Your task to perform on an android device: see tabs open on other devices in the chrome app Image 0: 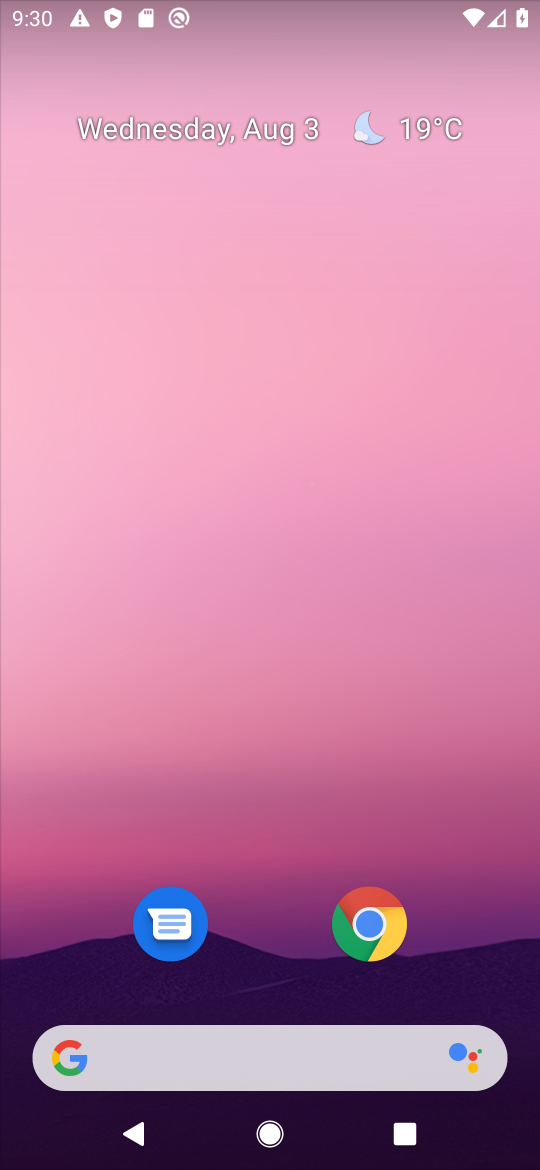
Step 0: press home button
Your task to perform on an android device: see tabs open on other devices in the chrome app Image 1: 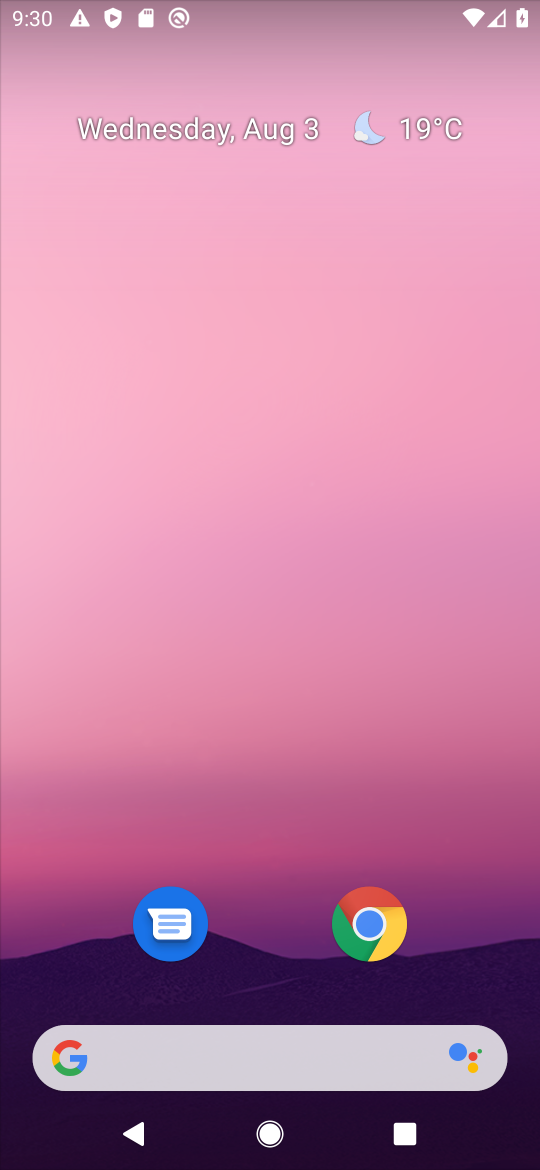
Step 1: click (364, 925)
Your task to perform on an android device: see tabs open on other devices in the chrome app Image 2: 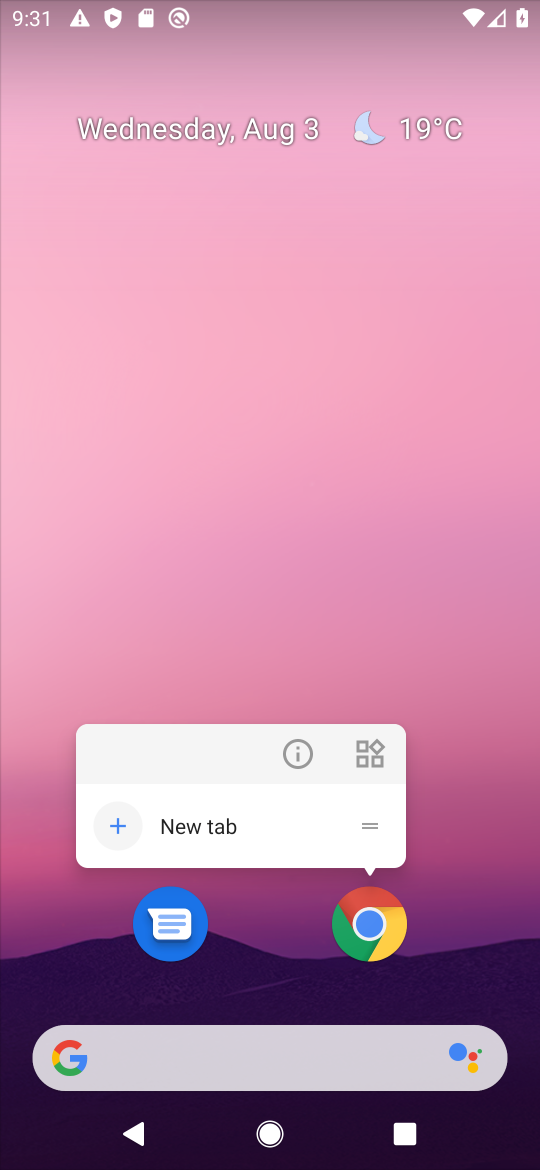
Step 2: click (432, 873)
Your task to perform on an android device: see tabs open on other devices in the chrome app Image 3: 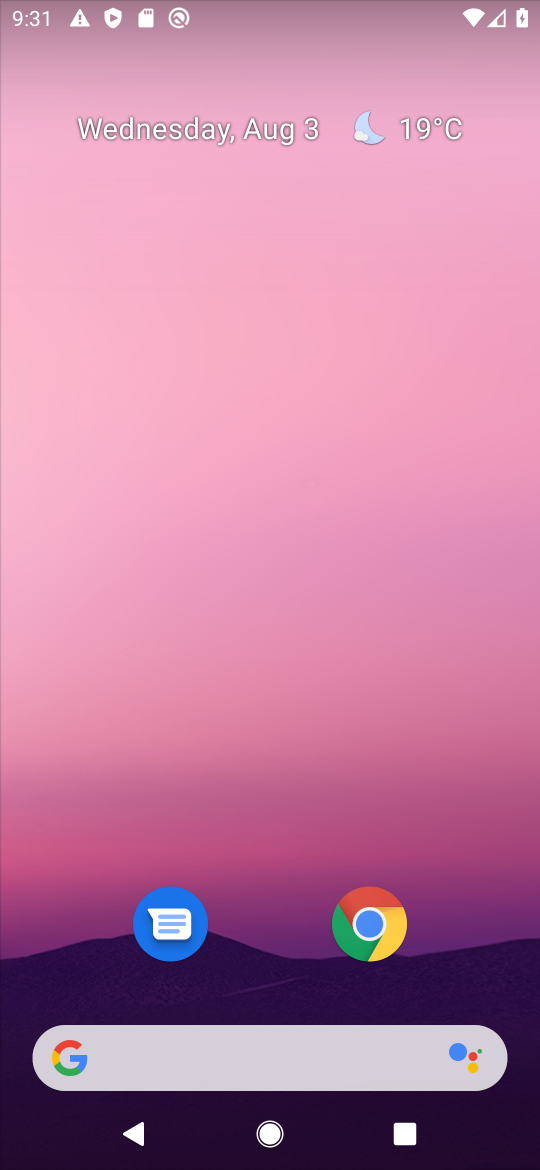
Step 3: drag from (439, 953) to (400, 40)
Your task to perform on an android device: see tabs open on other devices in the chrome app Image 4: 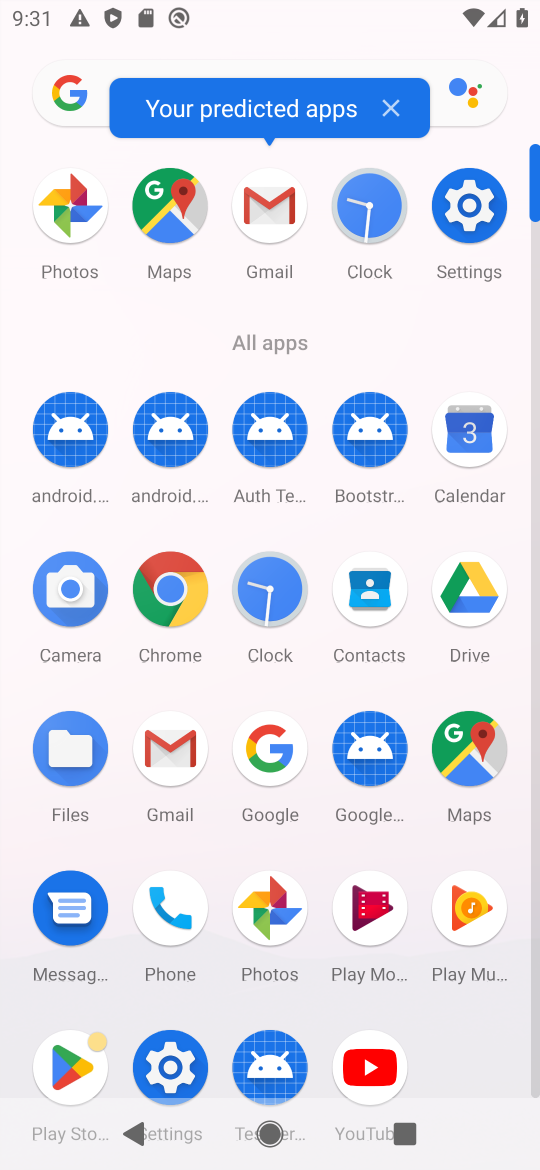
Step 4: click (161, 588)
Your task to perform on an android device: see tabs open on other devices in the chrome app Image 5: 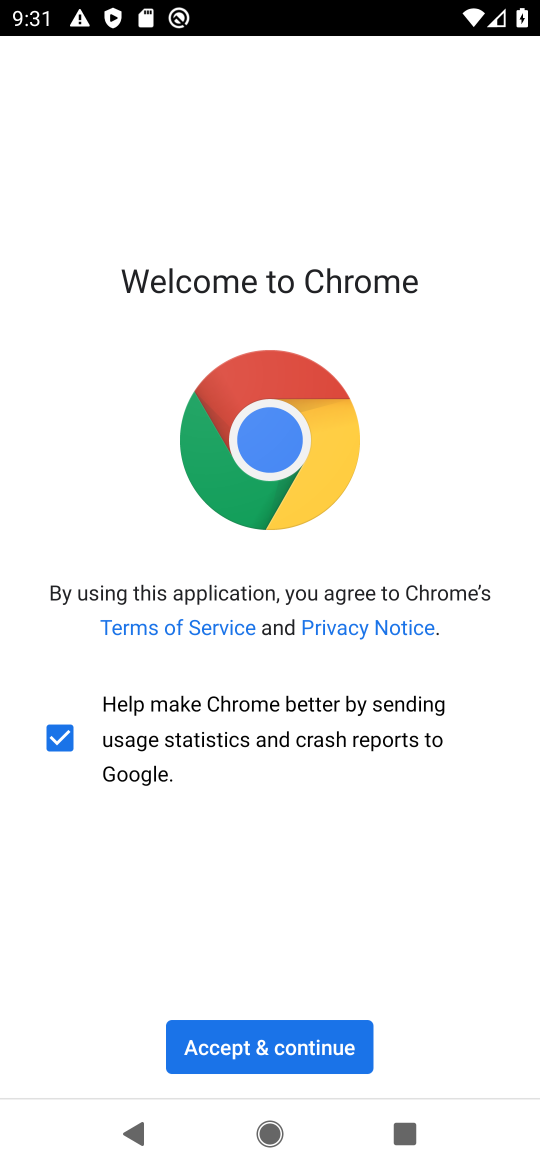
Step 5: click (264, 1040)
Your task to perform on an android device: see tabs open on other devices in the chrome app Image 6: 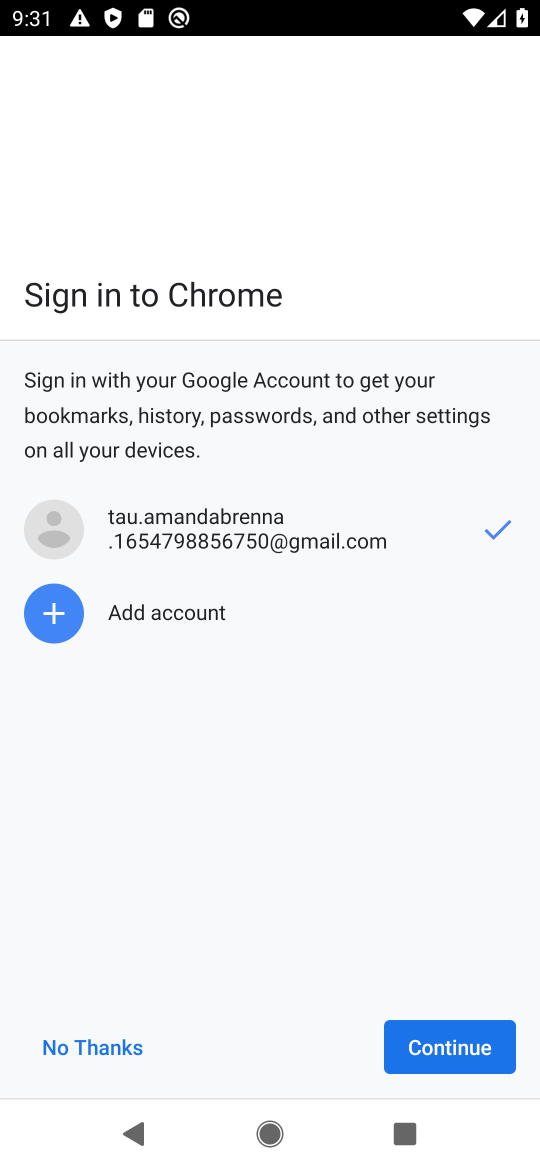
Step 6: click (431, 1047)
Your task to perform on an android device: see tabs open on other devices in the chrome app Image 7: 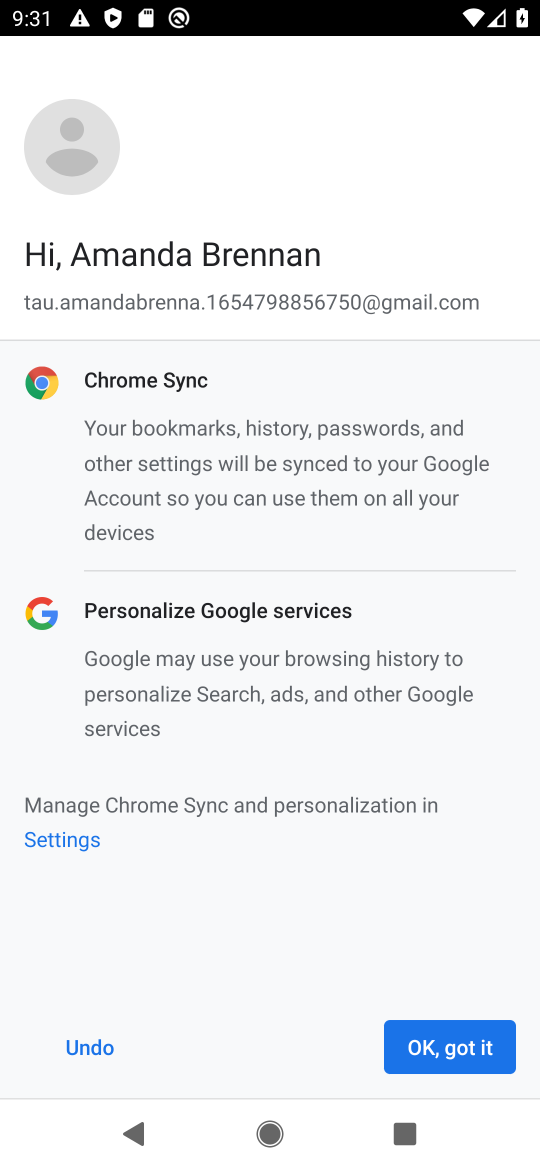
Step 7: click (456, 1043)
Your task to perform on an android device: see tabs open on other devices in the chrome app Image 8: 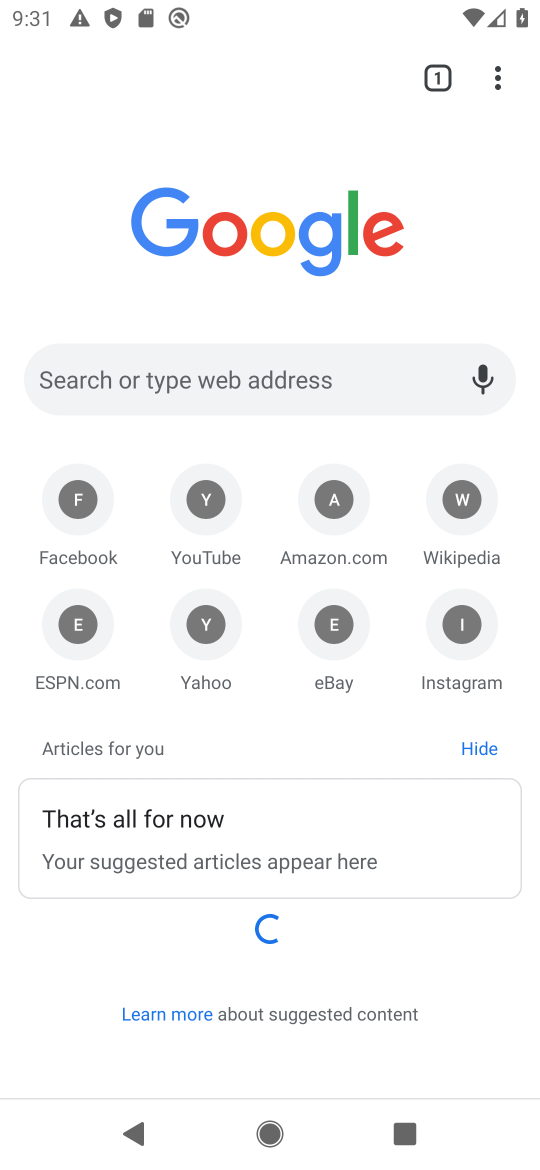
Step 8: click (499, 70)
Your task to perform on an android device: see tabs open on other devices in the chrome app Image 9: 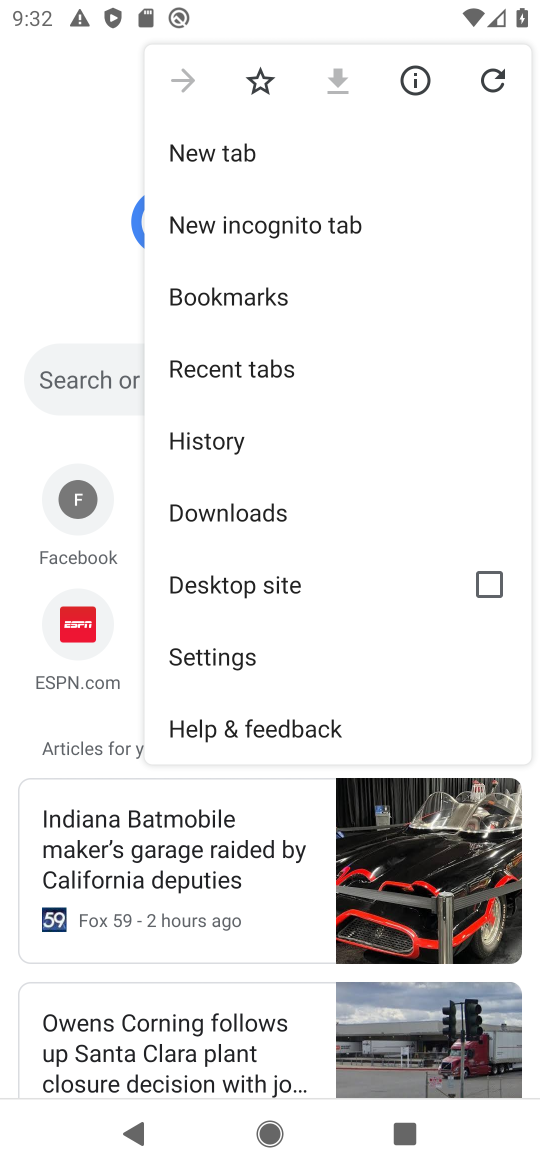
Step 9: click (290, 361)
Your task to perform on an android device: see tabs open on other devices in the chrome app Image 10: 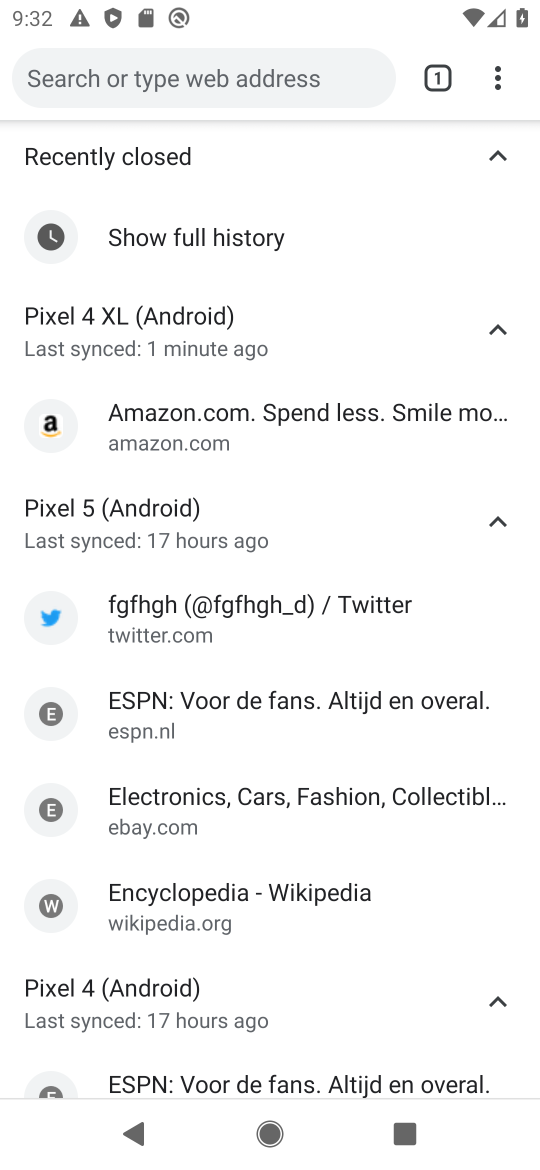
Step 10: task complete